Your task to perform on an android device: turn smart compose on in the gmail app Image 0: 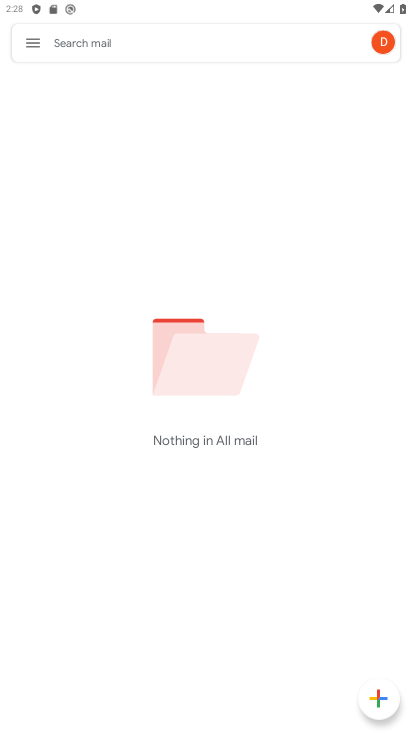
Step 0: press home button
Your task to perform on an android device: turn smart compose on in the gmail app Image 1: 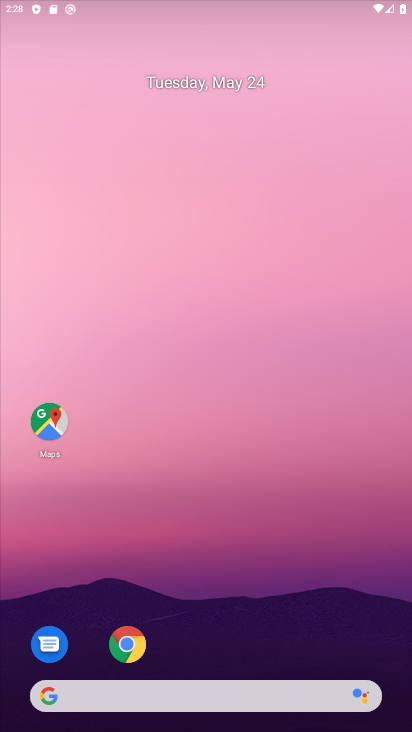
Step 1: drag from (246, 576) to (298, 150)
Your task to perform on an android device: turn smart compose on in the gmail app Image 2: 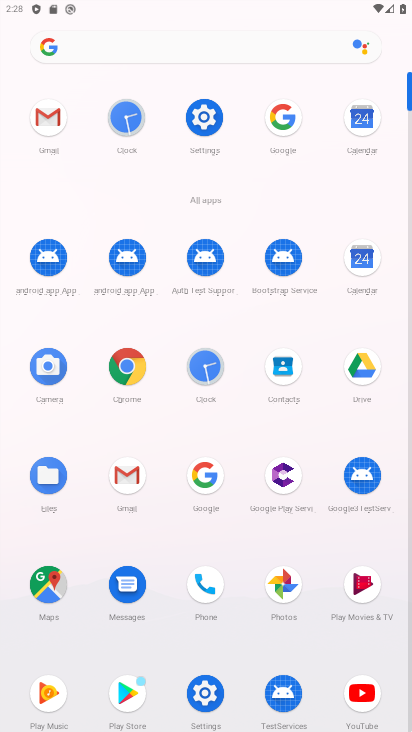
Step 2: click (53, 113)
Your task to perform on an android device: turn smart compose on in the gmail app Image 3: 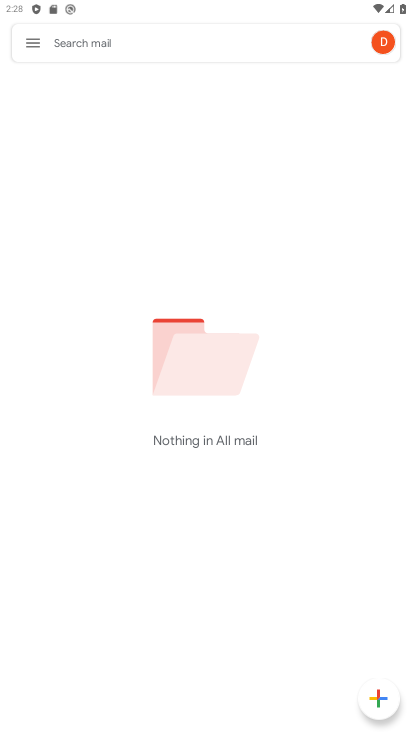
Step 3: click (38, 41)
Your task to perform on an android device: turn smart compose on in the gmail app Image 4: 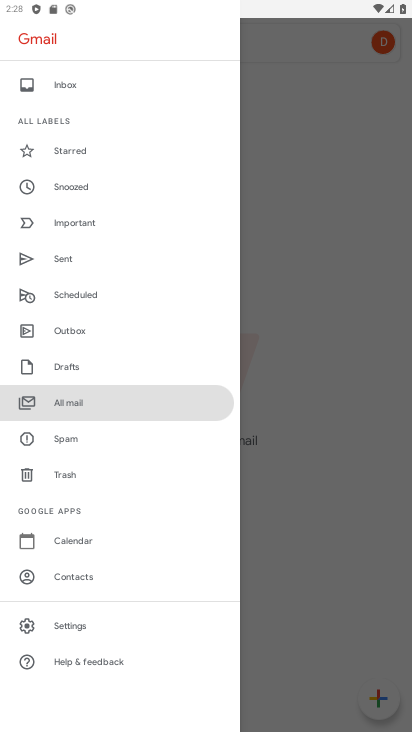
Step 4: click (83, 621)
Your task to perform on an android device: turn smart compose on in the gmail app Image 5: 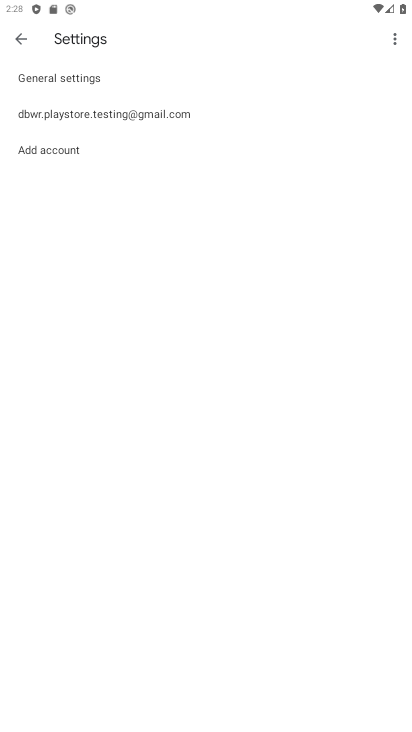
Step 5: click (90, 112)
Your task to perform on an android device: turn smart compose on in the gmail app Image 6: 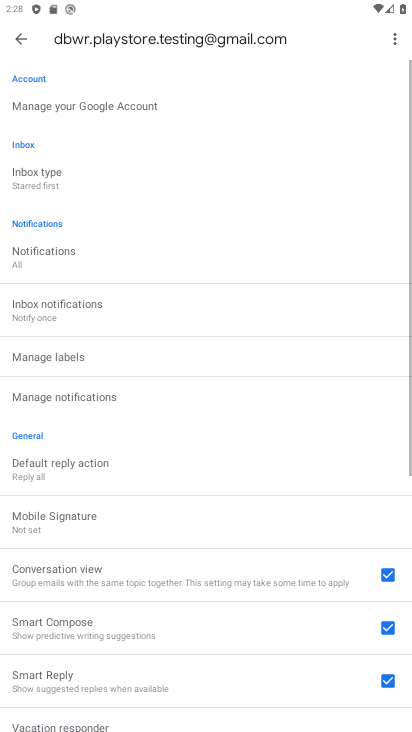
Step 6: task complete